Your task to perform on an android device: Open Wikipedia Image 0: 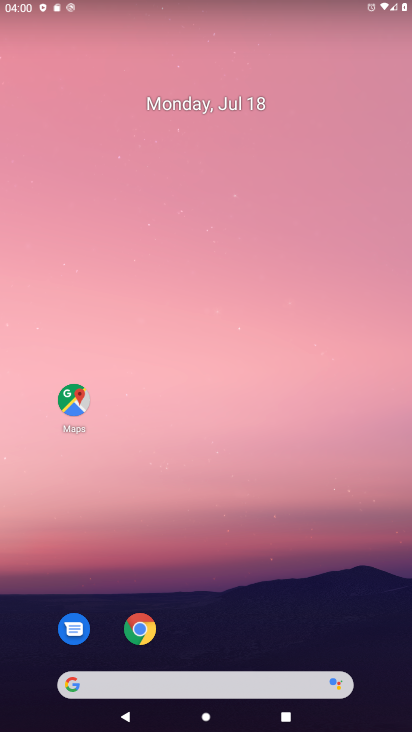
Step 0: click (140, 633)
Your task to perform on an android device: Open Wikipedia Image 1: 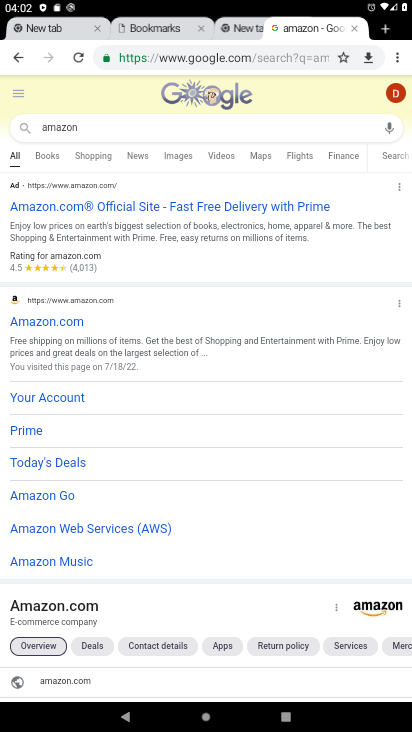
Step 1: click (283, 56)
Your task to perform on an android device: Open Wikipedia Image 2: 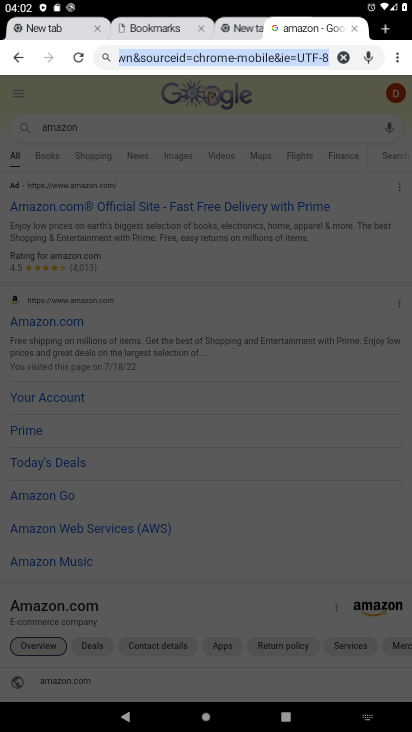
Step 2: click (346, 50)
Your task to perform on an android device: Open Wikipedia Image 3: 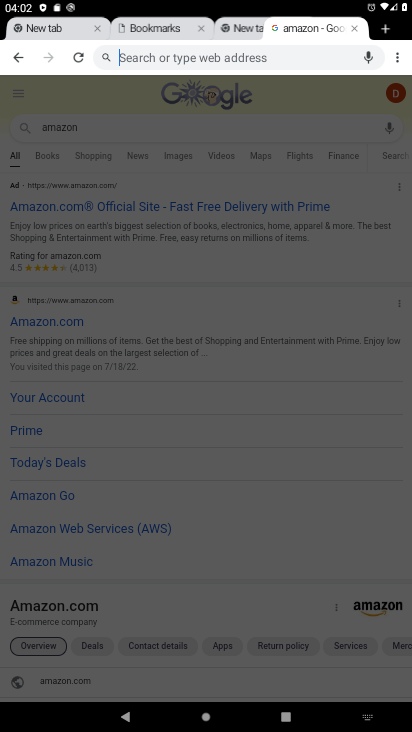
Step 3: type "Wikipedia"
Your task to perform on an android device: Open Wikipedia Image 4: 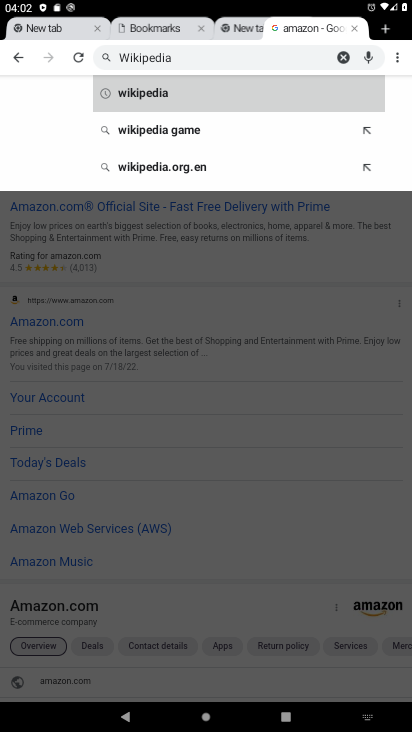
Step 4: click (147, 90)
Your task to perform on an android device: Open Wikipedia Image 5: 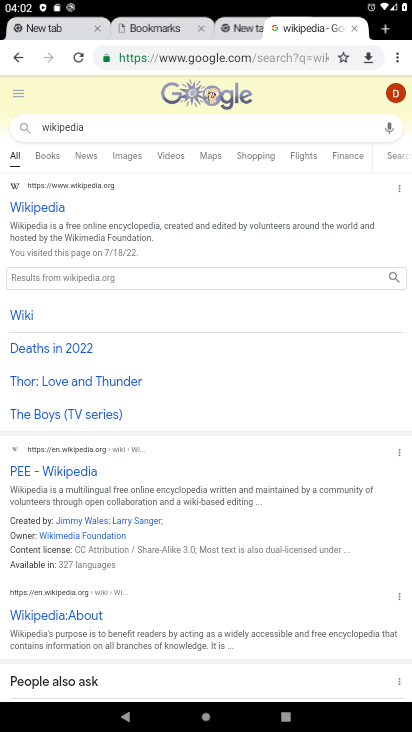
Step 5: task complete